Your task to perform on an android device: turn off notifications in google photos Image 0: 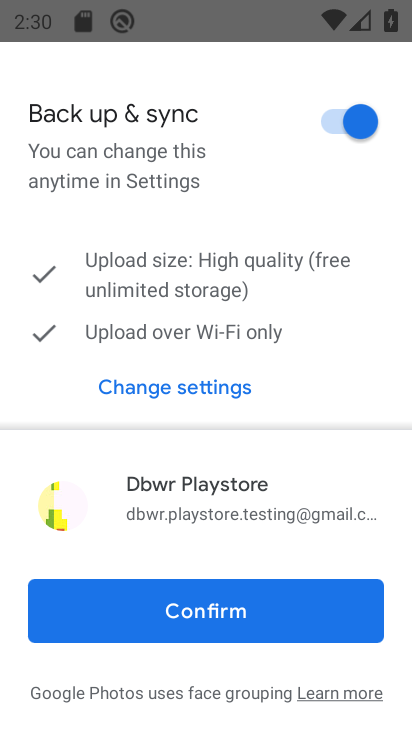
Step 0: press home button
Your task to perform on an android device: turn off notifications in google photos Image 1: 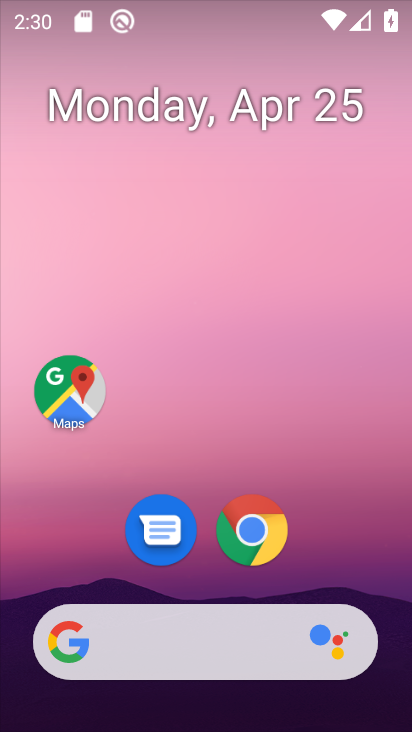
Step 1: drag from (299, 668) to (298, 320)
Your task to perform on an android device: turn off notifications in google photos Image 2: 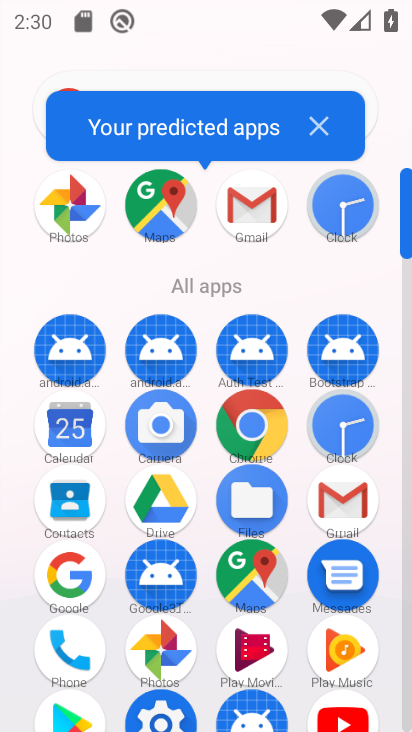
Step 2: click (171, 639)
Your task to perform on an android device: turn off notifications in google photos Image 3: 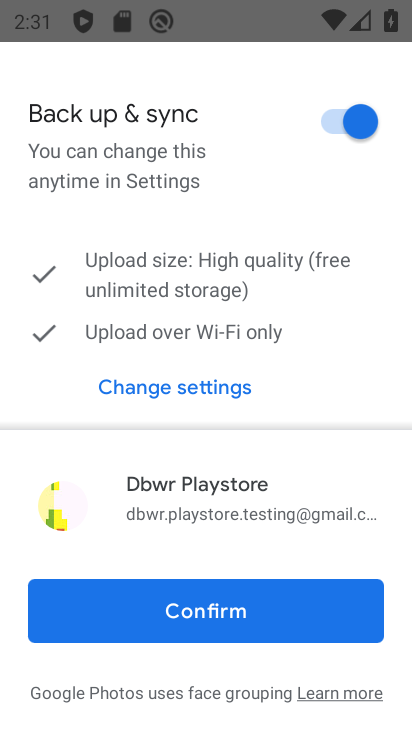
Step 3: click (170, 642)
Your task to perform on an android device: turn off notifications in google photos Image 4: 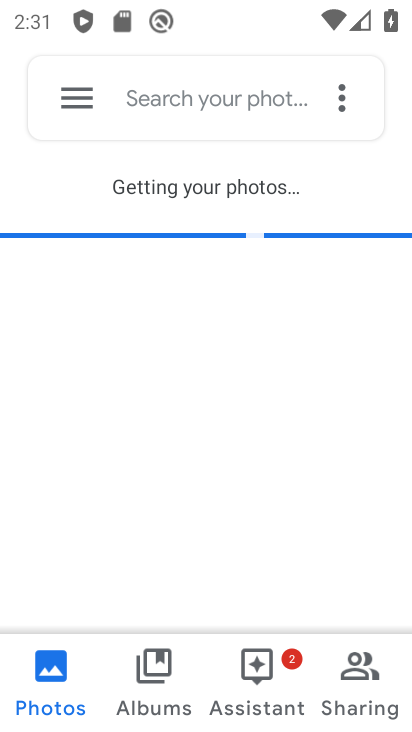
Step 4: click (71, 110)
Your task to perform on an android device: turn off notifications in google photos Image 5: 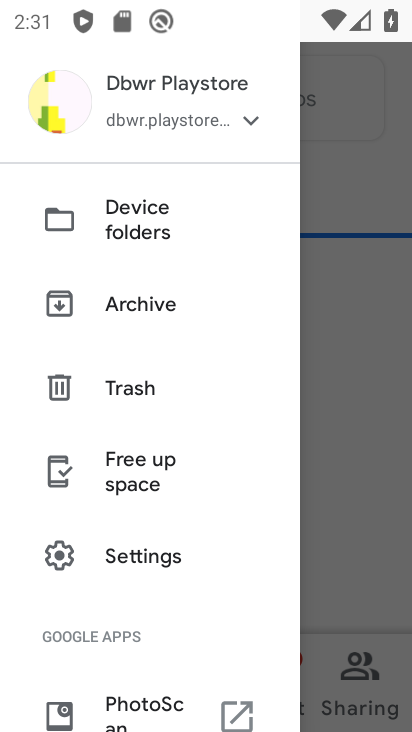
Step 5: click (123, 553)
Your task to perform on an android device: turn off notifications in google photos Image 6: 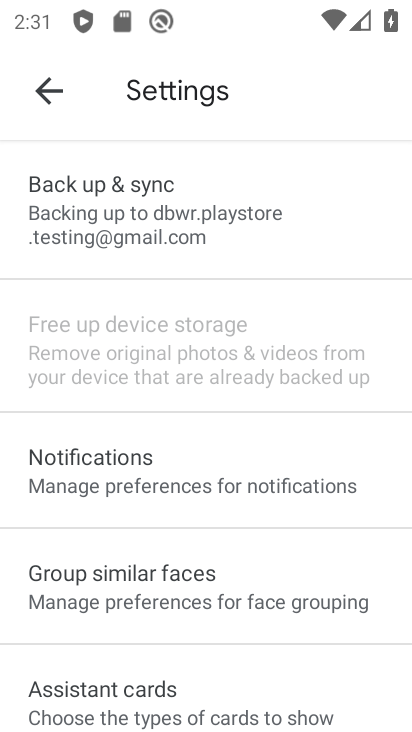
Step 6: click (145, 501)
Your task to perform on an android device: turn off notifications in google photos Image 7: 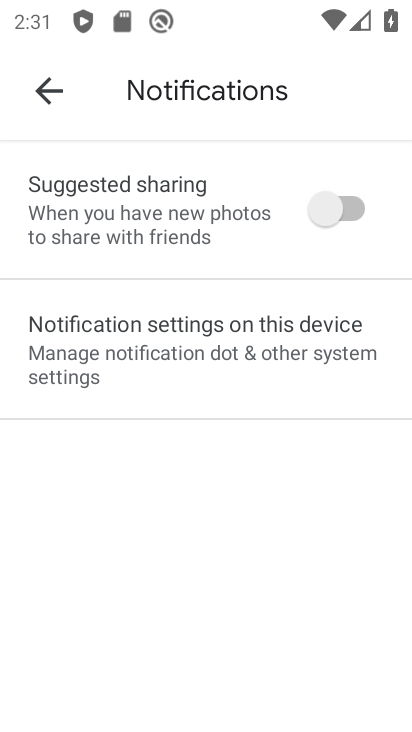
Step 7: click (148, 329)
Your task to perform on an android device: turn off notifications in google photos Image 8: 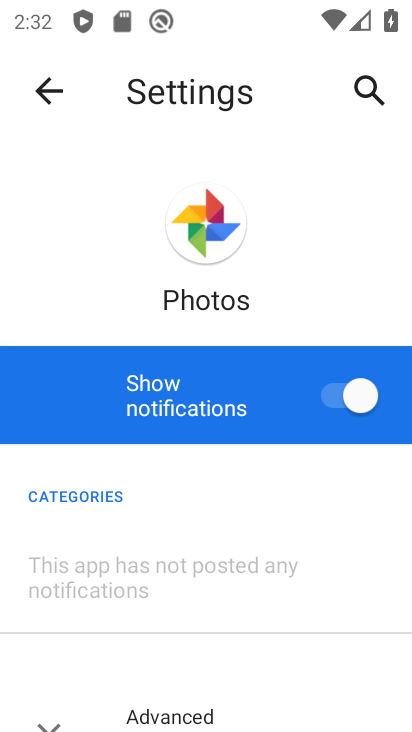
Step 8: click (351, 414)
Your task to perform on an android device: turn off notifications in google photos Image 9: 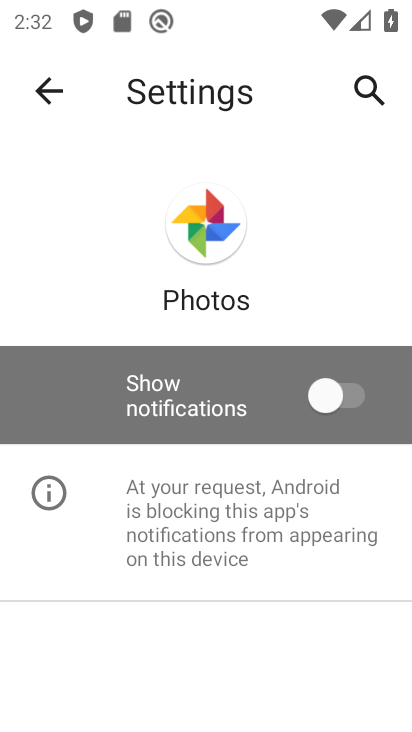
Step 9: task complete